Your task to perform on an android device: turn on showing notifications on the lock screen Image 0: 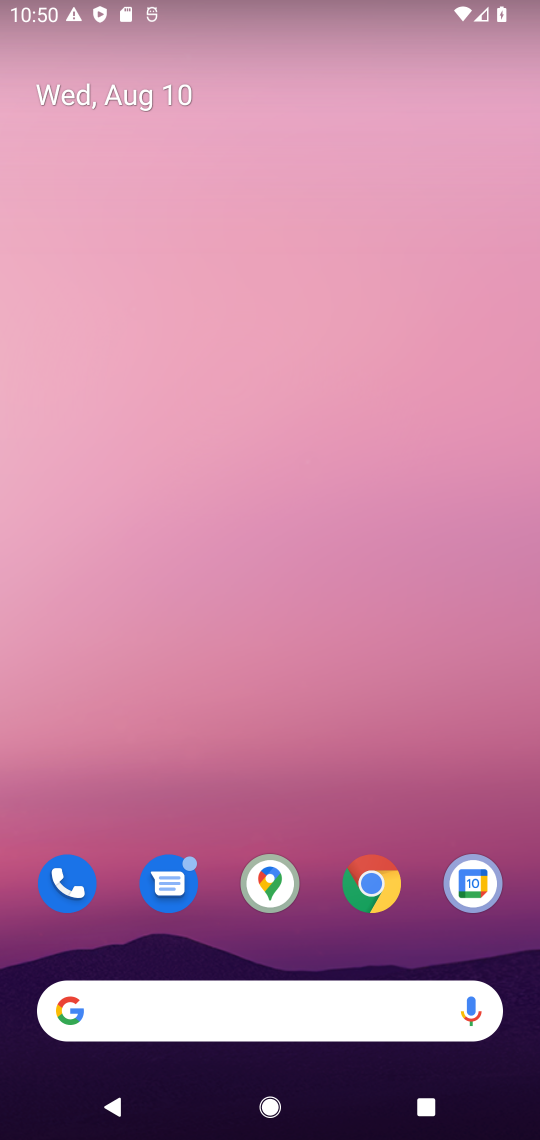
Step 0: drag from (395, 939) to (354, 156)
Your task to perform on an android device: turn on showing notifications on the lock screen Image 1: 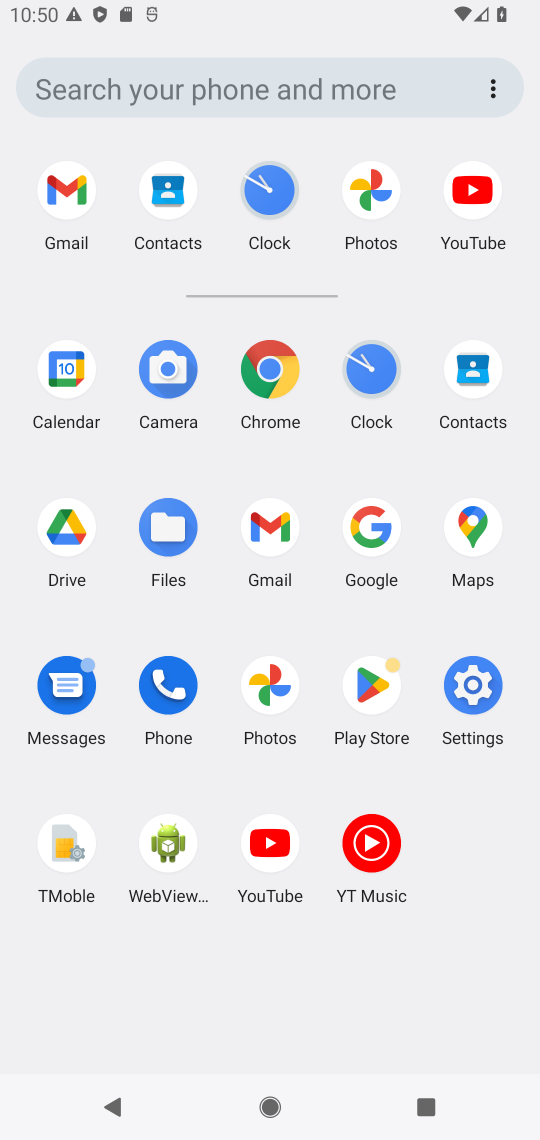
Step 1: click (466, 691)
Your task to perform on an android device: turn on showing notifications on the lock screen Image 2: 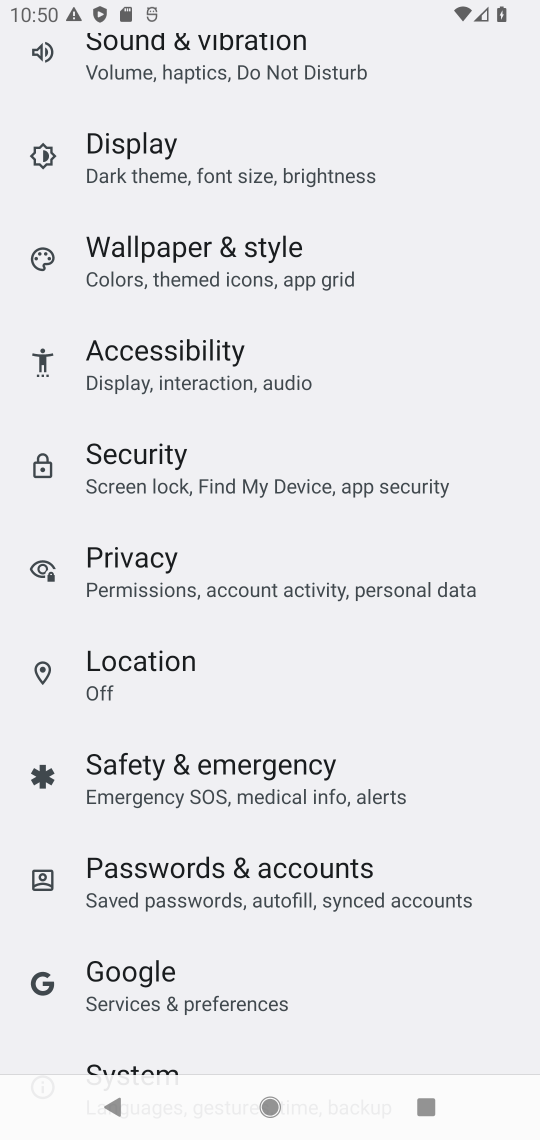
Step 2: drag from (308, 293) to (239, 963)
Your task to perform on an android device: turn on showing notifications on the lock screen Image 3: 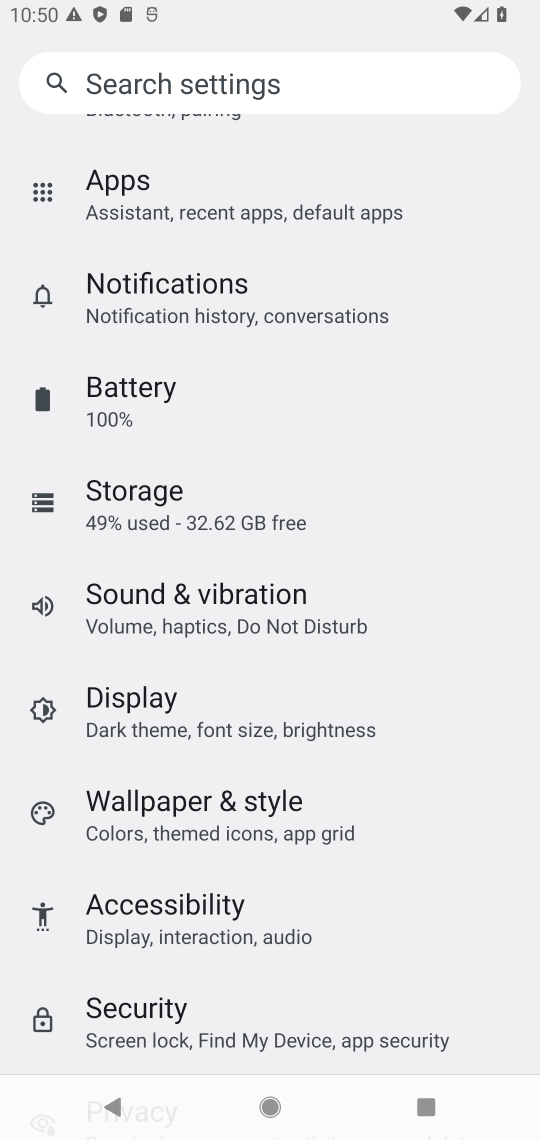
Step 3: click (187, 291)
Your task to perform on an android device: turn on showing notifications on the lock screen Image 4: 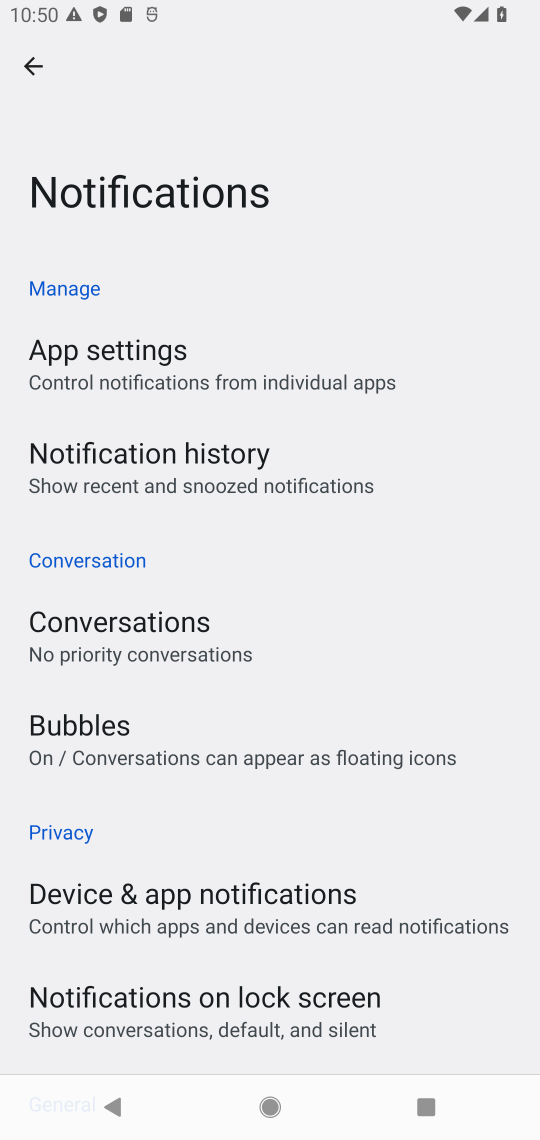
Step 4: drag from (216, 849) to (207, 468)
Your task to perform on an android device: turn on showing notifications on the lock screen Image 5: 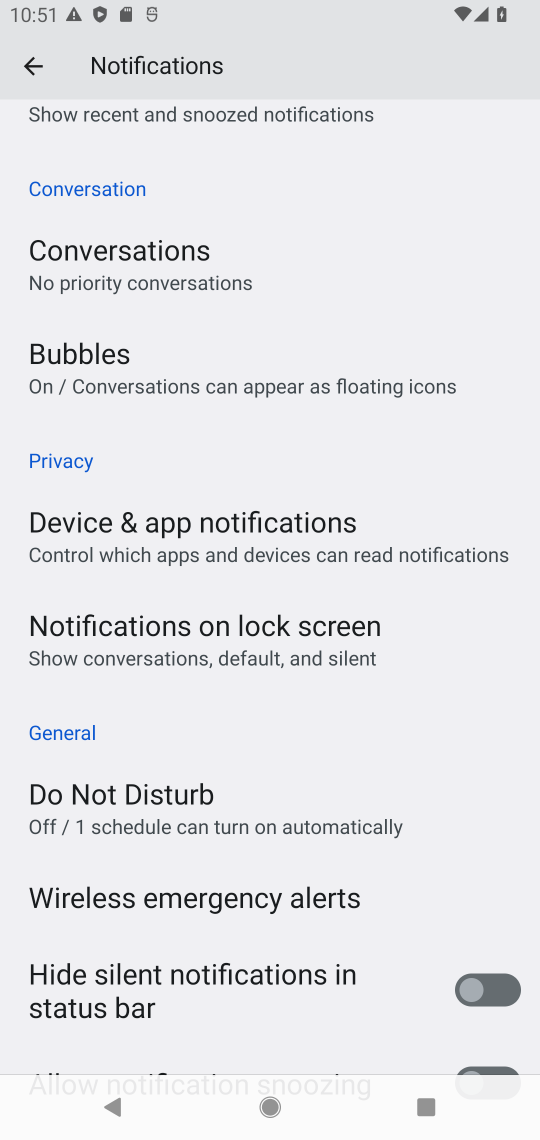
Step 5: click (202, 611)
Your task to perform on an android device: turn on showing notifications on the lock screen Image 6: 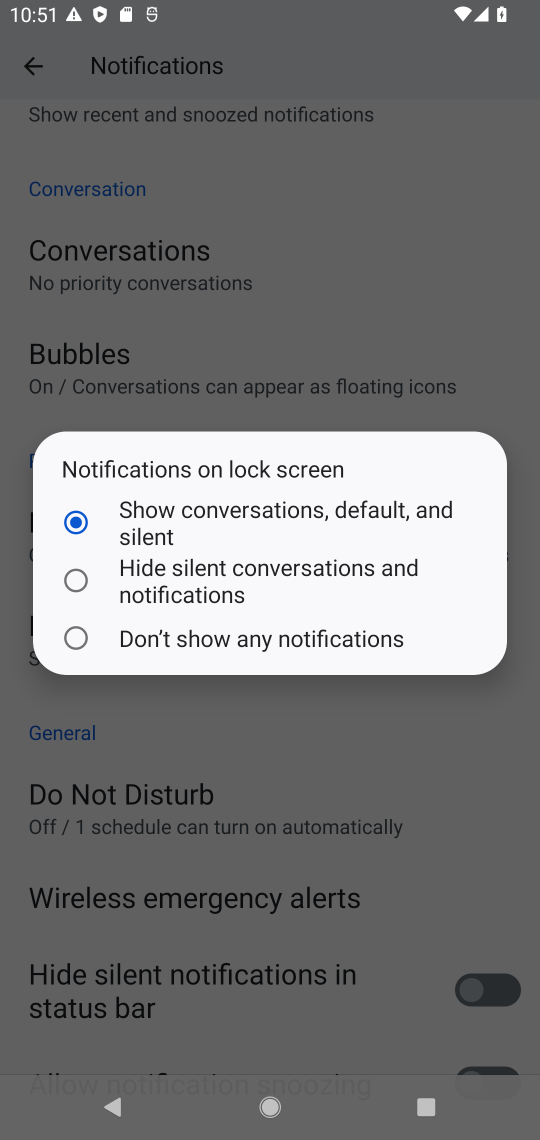
Step 6: click (365, 629)
Your task to perform on an android device: turn on showing notifications on the lock screen Image 7: 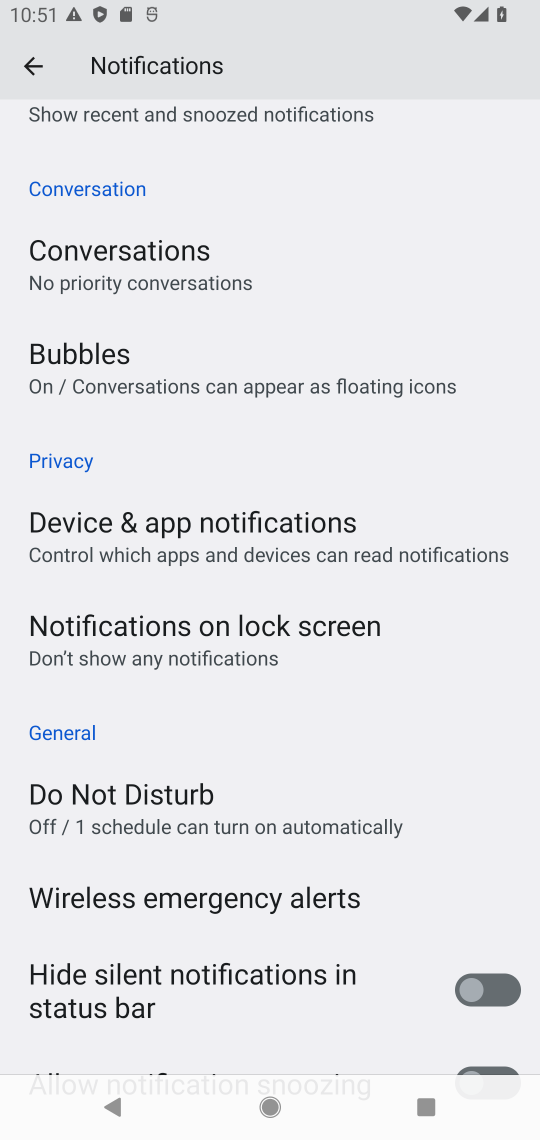
Step 7: click (282, 626)
Your task to perform on an android device: turn on showing notifications on the lock screen Image 8: 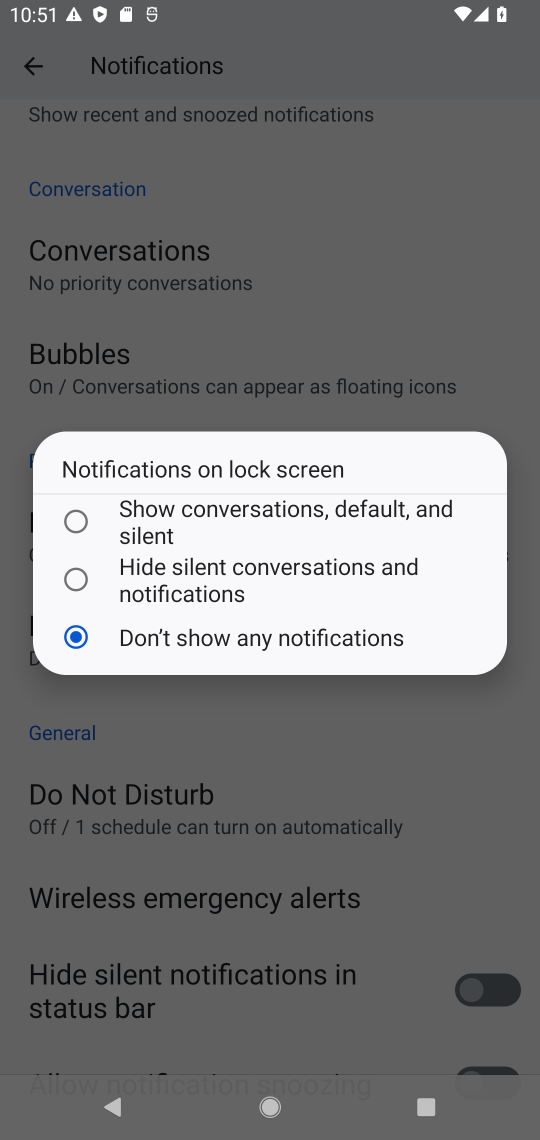
Step 8: click (215, 516)
Your task to perform on an android device: turn on showing notifications on the lock screen Image 9: 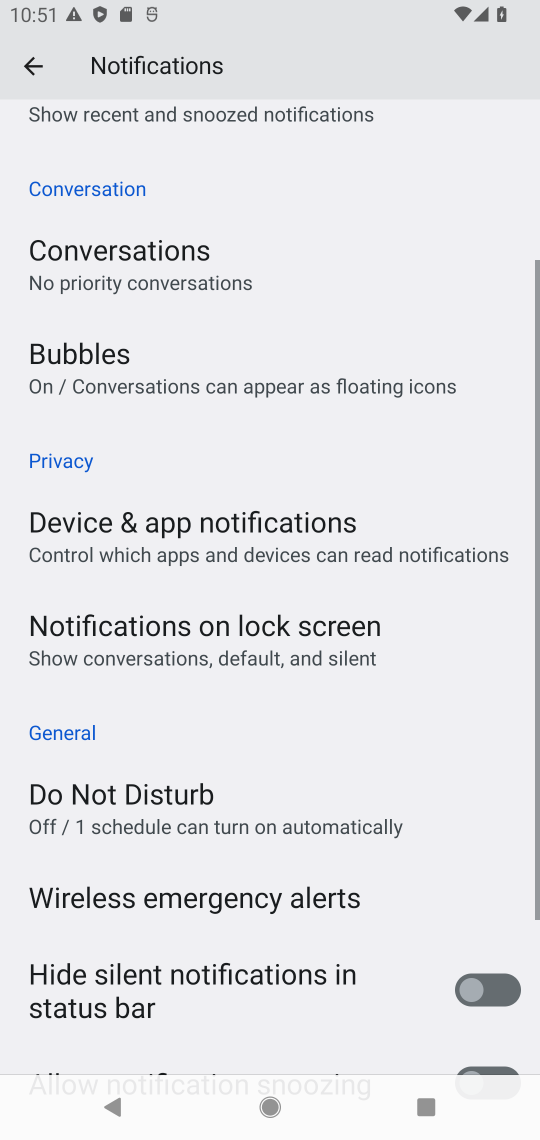
Step 9: task complete